Your task to perform on an android device: Look up the top rated 18v miter saw on Home Depot. Image 0: 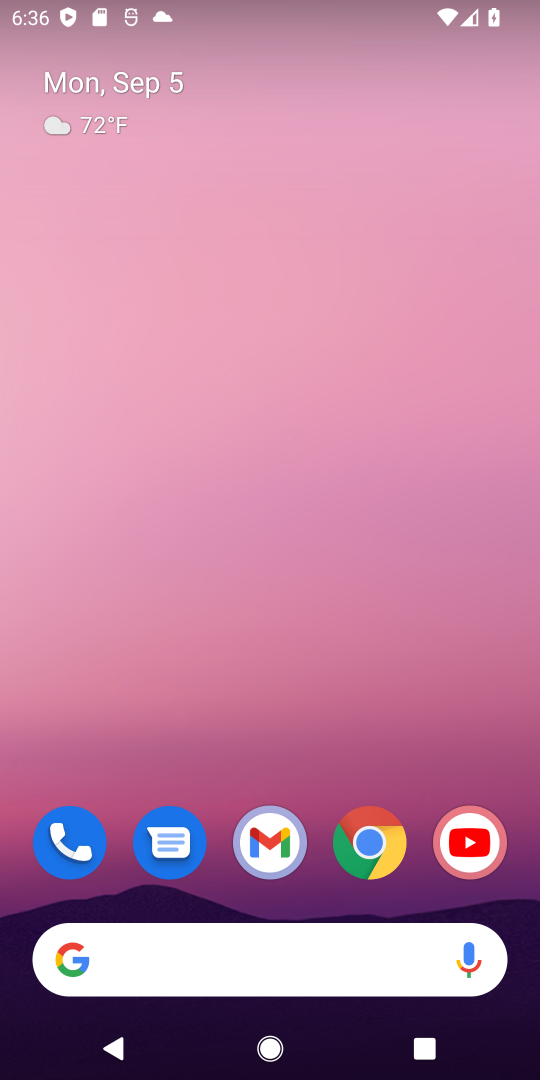
Step 0: click (370, 839)
Your task to perform on an android device: Look up the top rated 18v miter saw on Home Depot. Image 1: 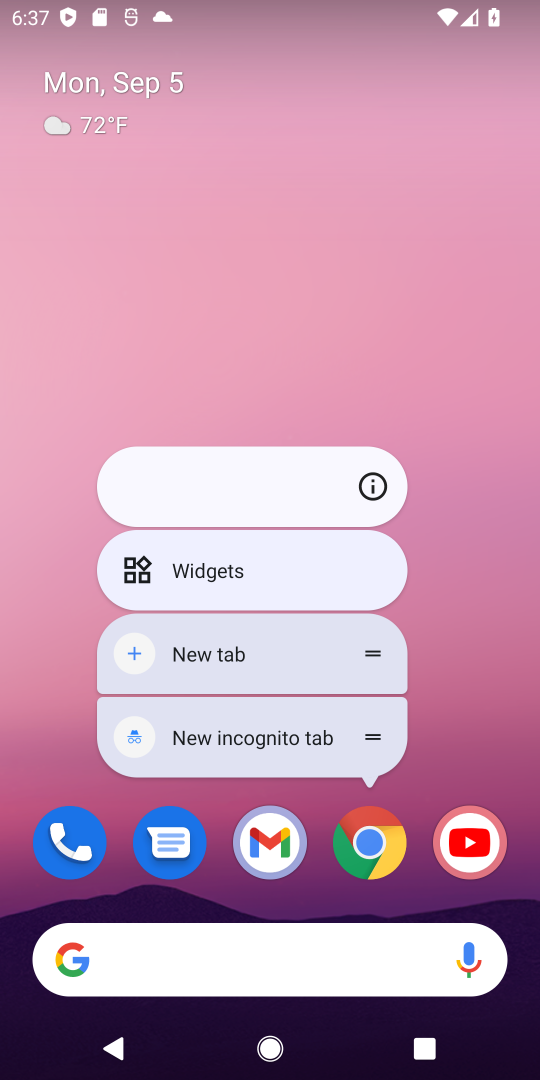
Step 1: click (368, 844)
Your task to perform on an android device: Look up the top rated 18v miter saw on Home Depot. Image 2: 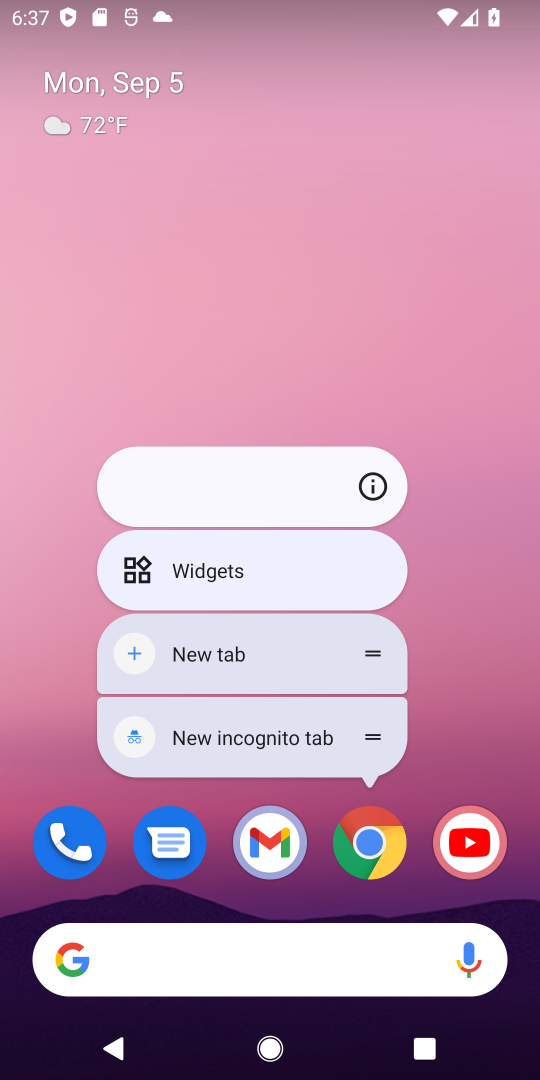
Step 2: click (371, 844)
Your task to perform on an android device: Look up the top rated 18v miter saw on Home Depot. Image 3: 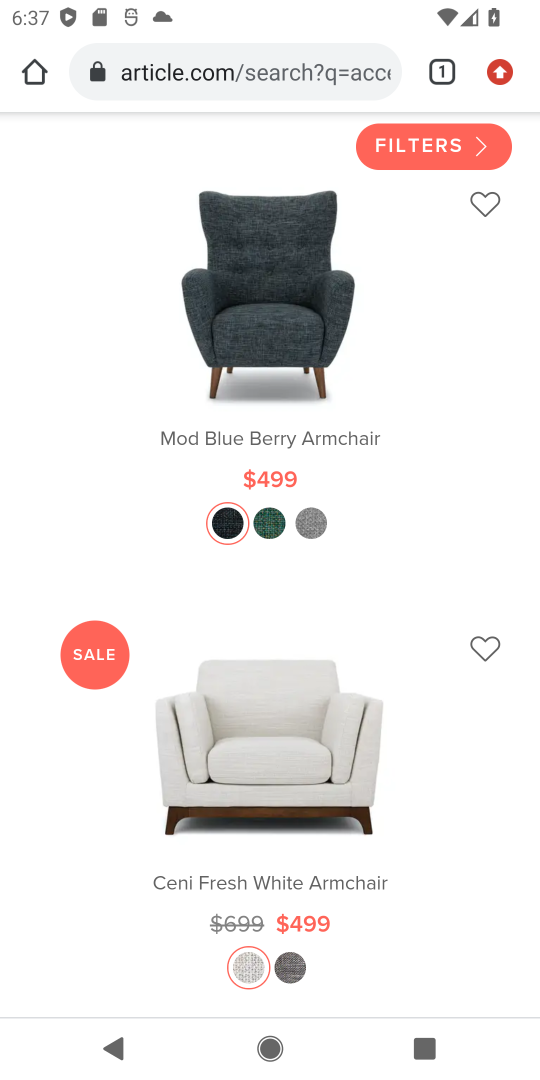
Step 3: click (318, 60)
Your task to perform on an android device: Look up the top rated 18v miter saw on Home Depot. Image 4: 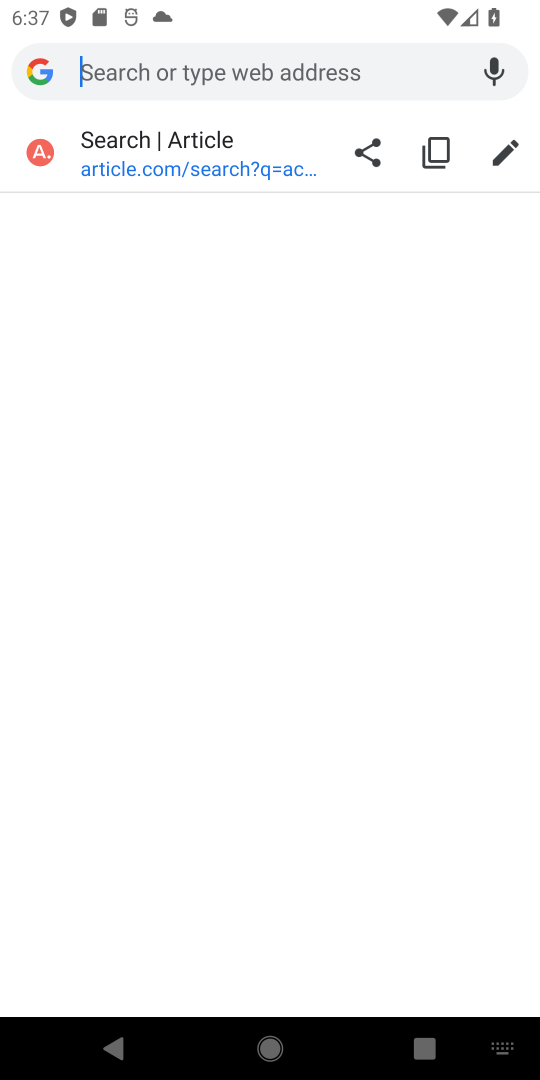
Step 4: type "Home Depot"
Your task to perform on an android device: Look up the top rated 18v miter saw on Home Depot. Image 5: 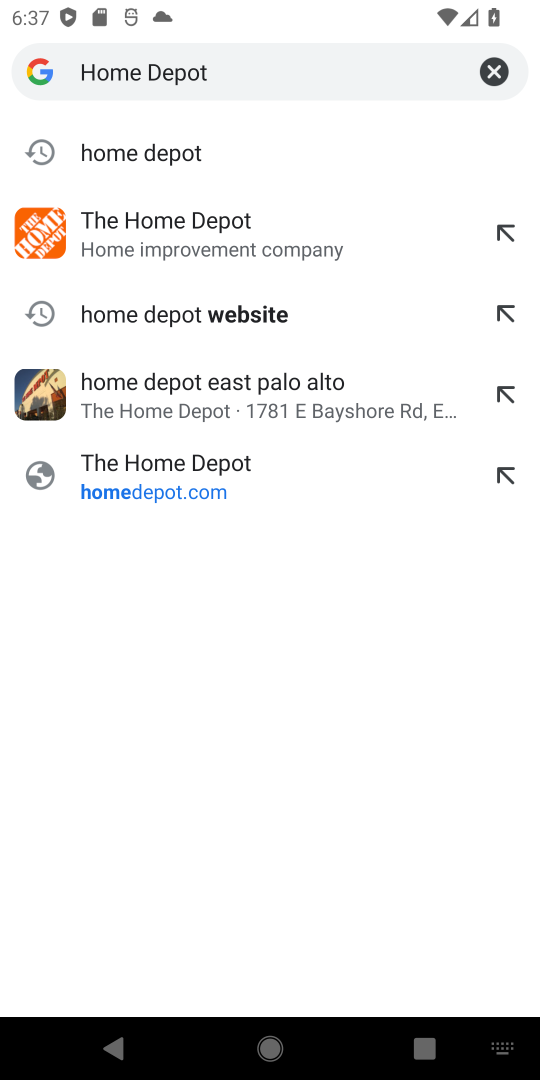
Step 5: click (236, 468)
Your task to perform on an android device: Look up the top rated 18v miter saw on Home Depot. Image 6: 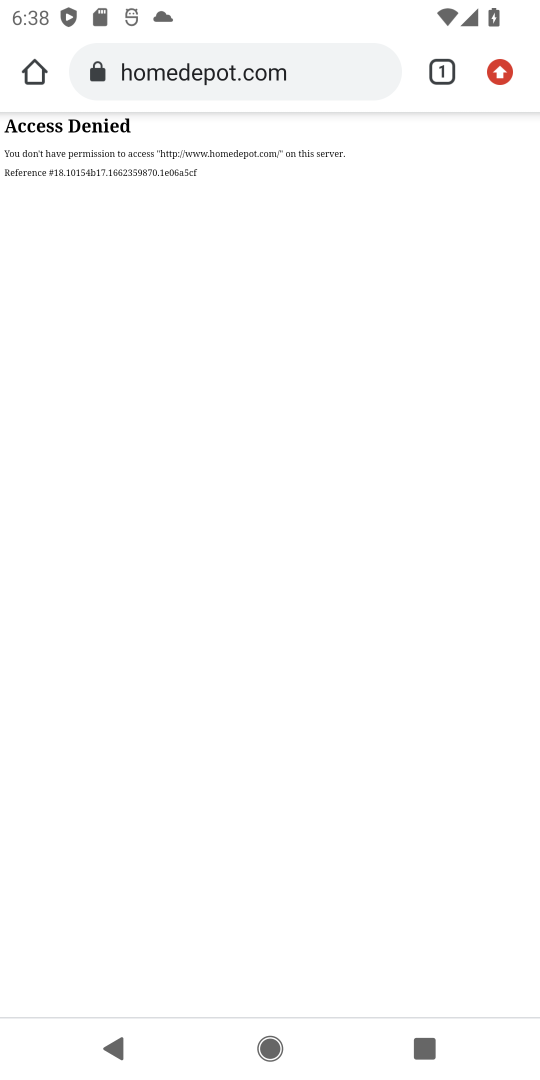
Step 6: task complete